Your task to perform on an android device: Open the calendar and show me this week's events? Image 0: 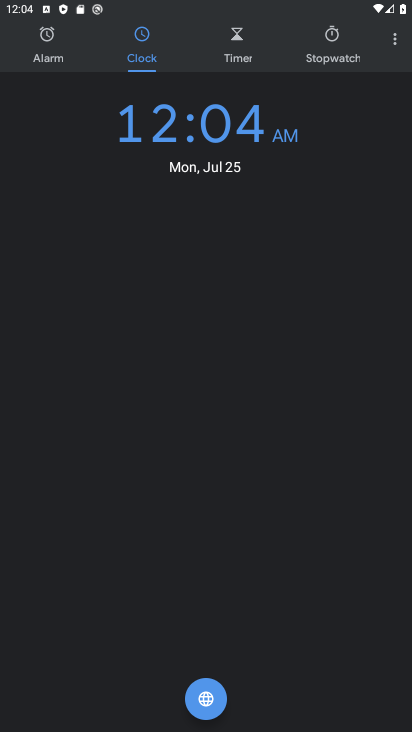
Step 0: press home button
Your task to perform on an android device: Open the calendar and show me this week's events? Image 1: 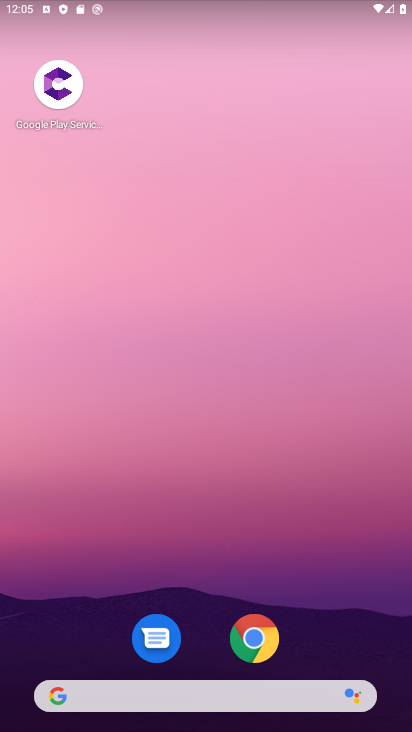
Step 1: drag from (66, 325) to (361, 494)
Your task to perform on an android device: Open the calendar and show me this week's events? Image 2: 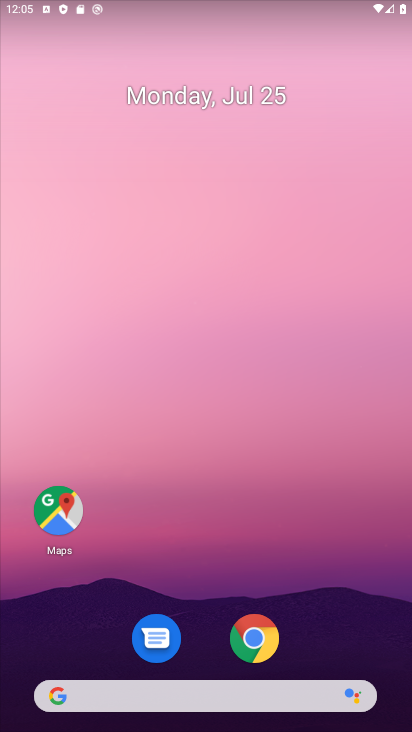
Step 2: click (182, 95)
Your task to perform on an android device: Open the calendar and show me this week's events? Image 3: 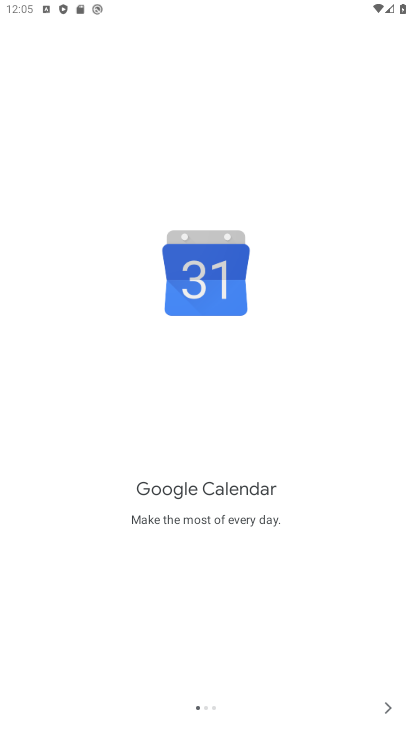
Step 3: click (386, 706)
Your task to perform on an android device: Open the calendar and show me this week's events? Image 4: 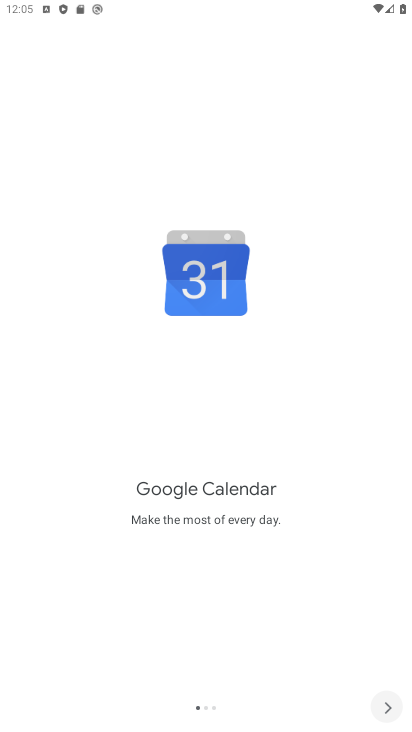
Step 4: click (386, 706)
Your task to perform on an android device: Open the calendar and show me this week's events? Image 5: 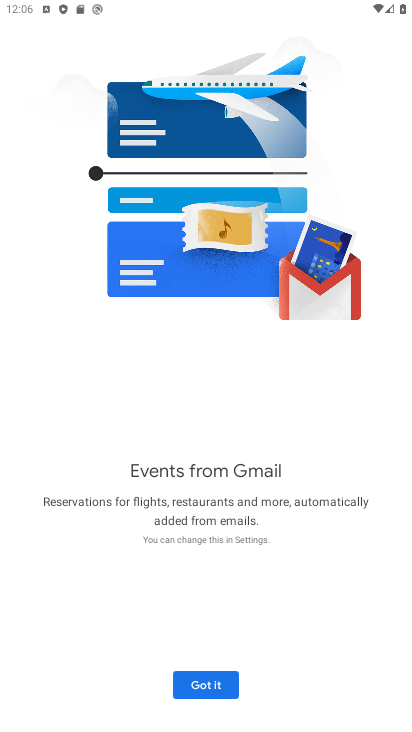
Step 5: click (217, 677)
Your task to perform on an android device: Open the calendar and show me this week's events? Image 6: 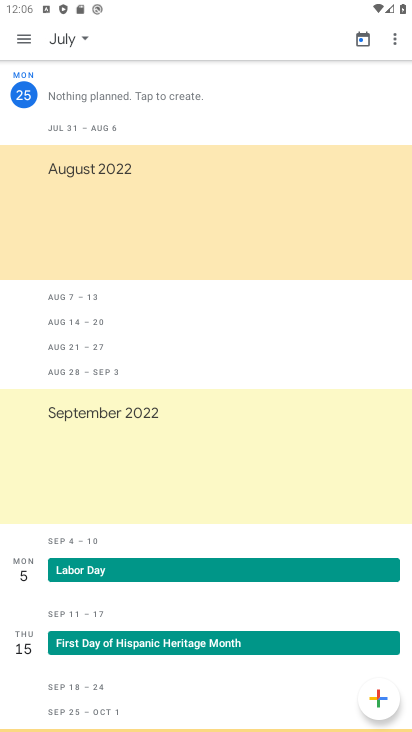
Step 6: click (72, 34)
Your task to perform on an android device: Open the calendar and show me this week's events? Image 7: 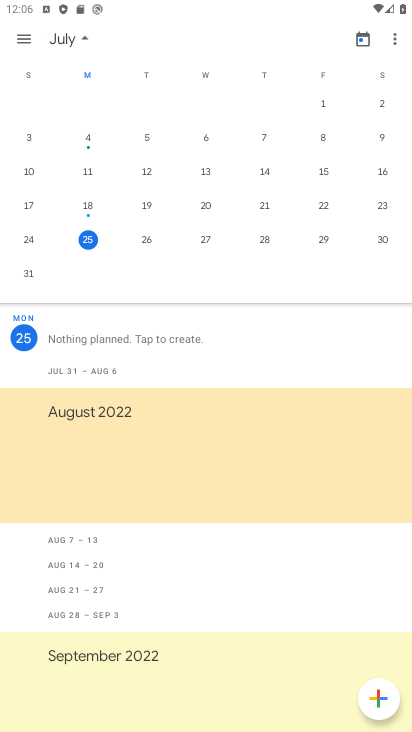
Step 7: task complete